Your task to perform on an android device: toggle improve location accuracy Image 0: 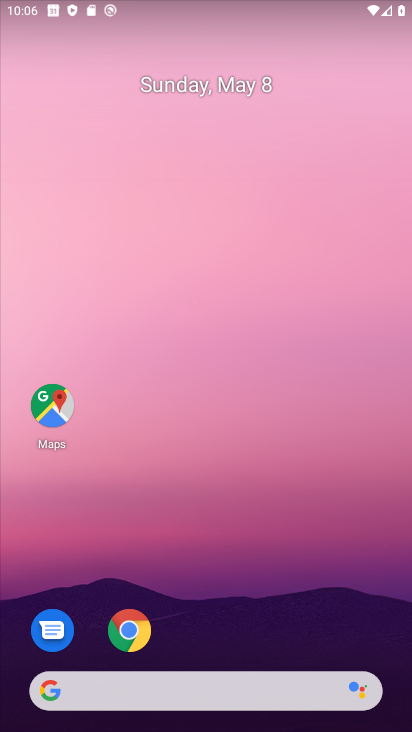
Step 0: drag from (191, 718) to (198, 198)
Your task to perform on an android device: toggle improve location accuracy Image 1: 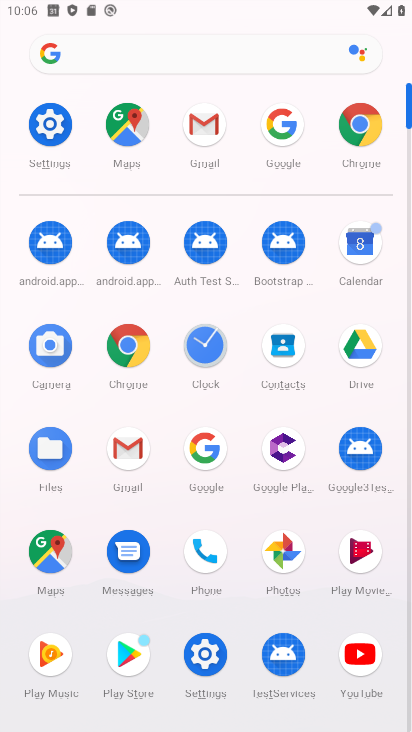
Step 1: click (49, 130)
Your task to perform on an android device: toggle improve location accuracy Image 2: 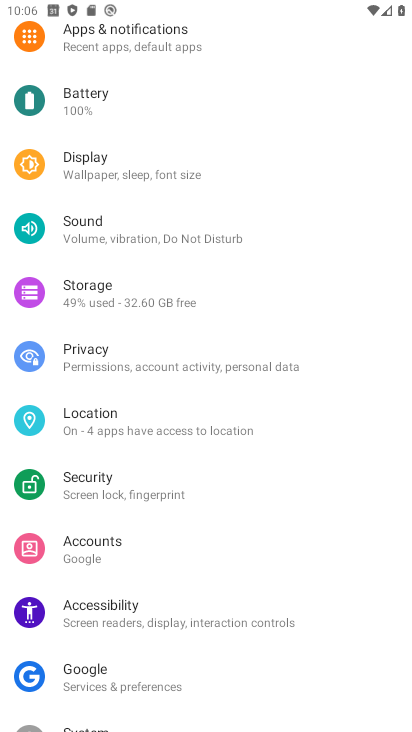
Step 2: click (89, 419)
Your task to perform on an android device: toggle improve location accuracy Image 3: 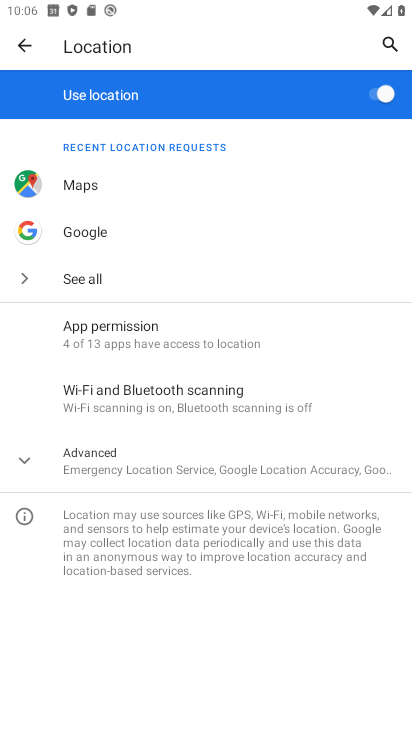
Step 3: click (89, 468)
Your task to perform on an android device: toggle improve location accuracy Image 4: 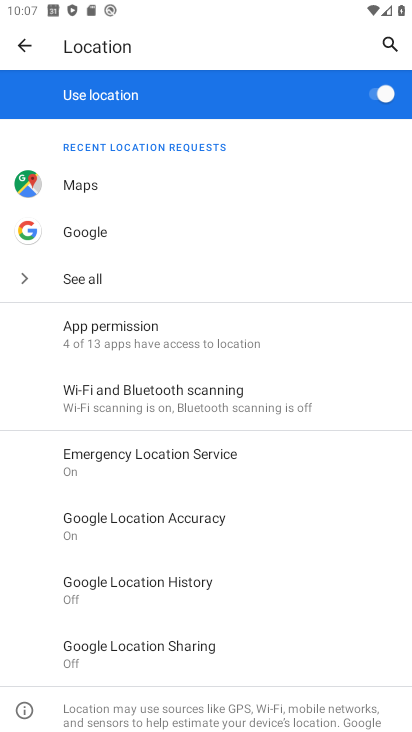
Step 4: click (153, 518)
Your task to perform on an android device: toggle improve location accuracy Image 5: 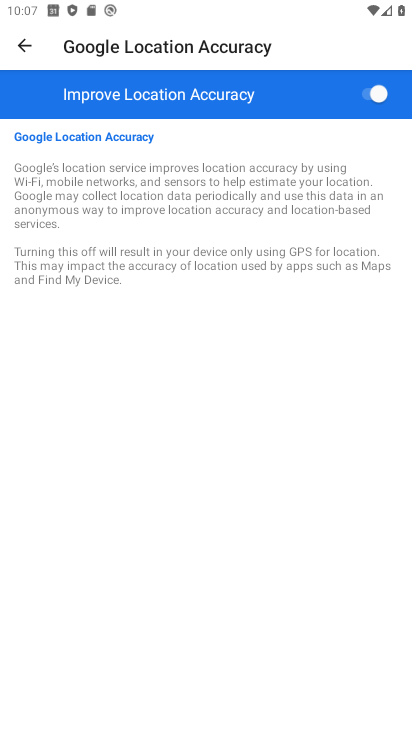
Step 5: click (364, 92)
Your task to perform on an android device: toggle improve location accuracy Image 6: 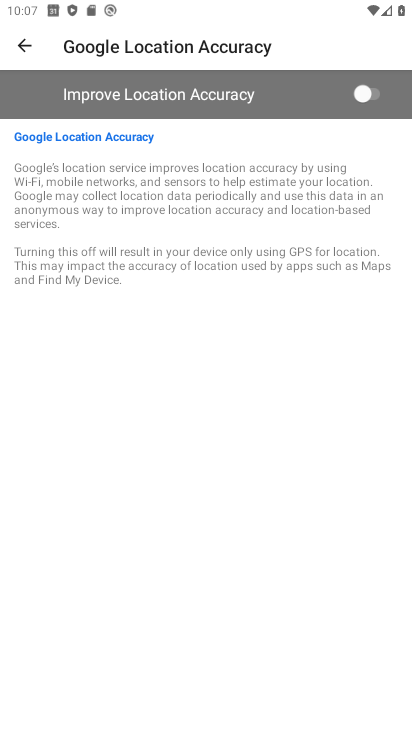
Step 6: task complete